Your task to perform on an android device: Open Amazon Image 0: 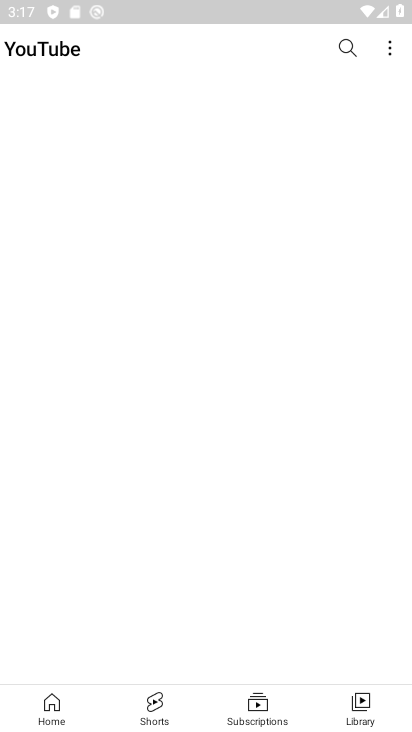
Step 0: press home button
Your task to perform on an android device: Open Amazon Image 1: 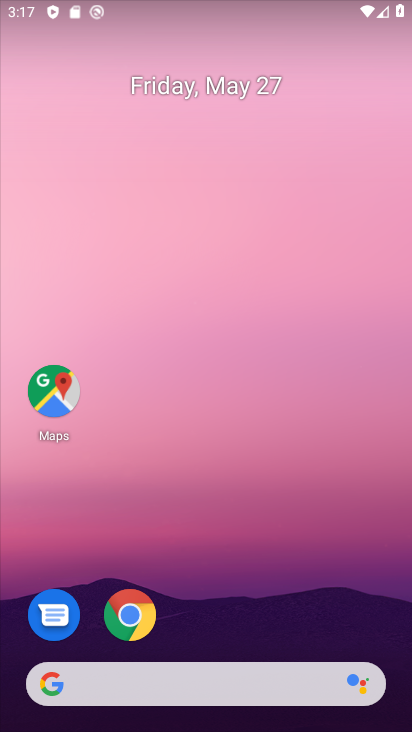
Step 1: click (125, 628)
Your task to perform on an android device: Open Amazon Image 2: 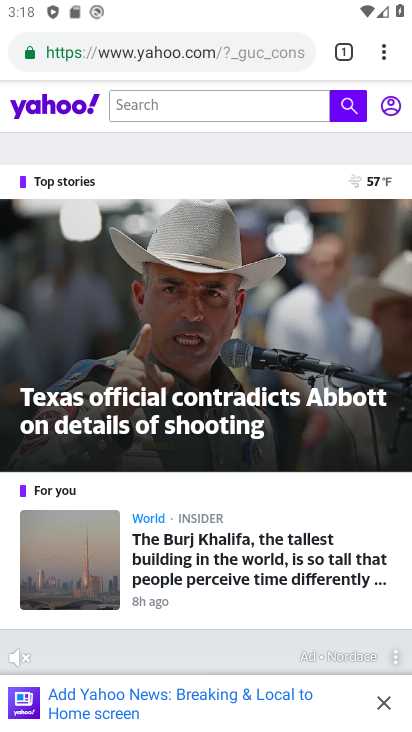
Step 2: click (340, 56)
Your task to perform on an android device: Open Amazon Image 3: 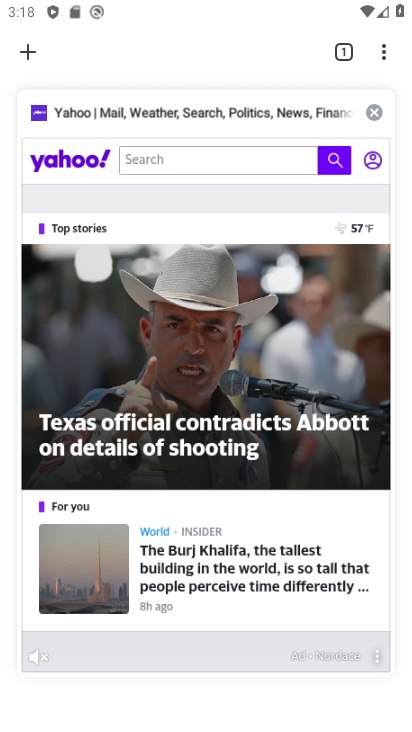
Step 3: click (365, 112)
Your task to perform on an android device: Open Amazon Image 4: 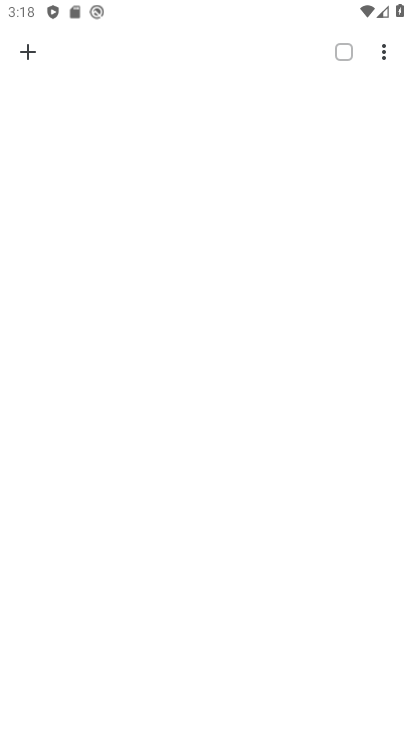
Step 4: click (22, 50)
Your task to perform on an android device: Open Amazon Image 5: 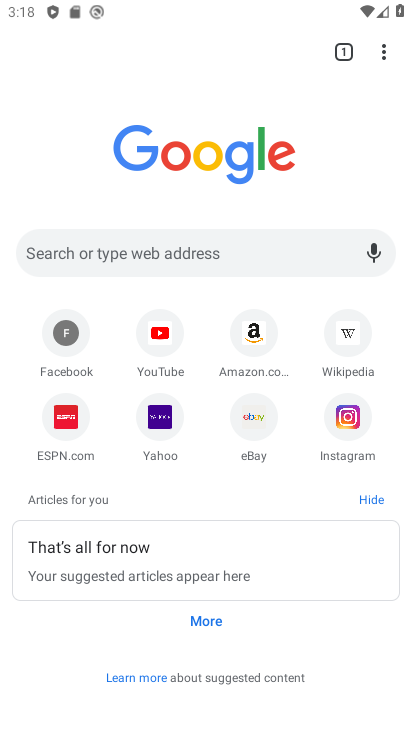
Step 5: click (243, 335)
Your task to perform on an android device: Open Amazon Image 6: 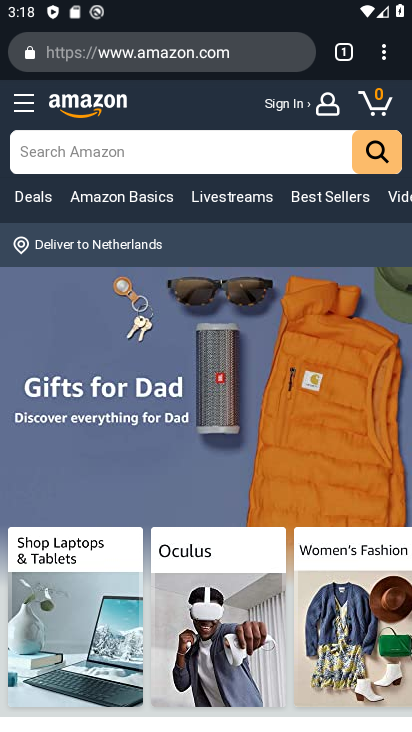
Step 6: task complete